Your task to perform on an android device: move a message to another label in the gmail app Image 0: 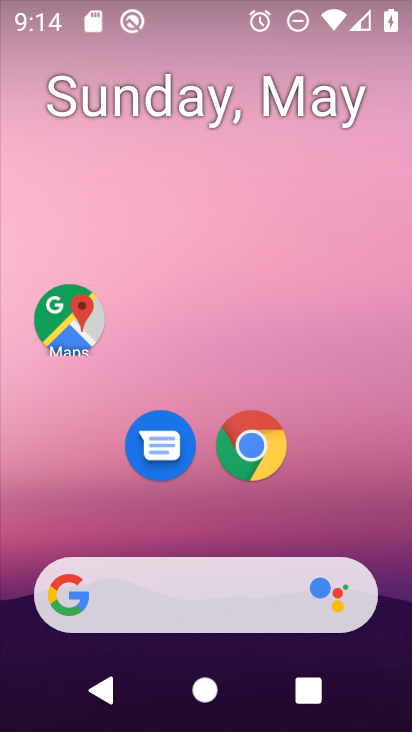
Step 0: drag from (257, 546) to (260, 139)
Your task to perform on an android device: move a message to another label in the gmail app Image 1: 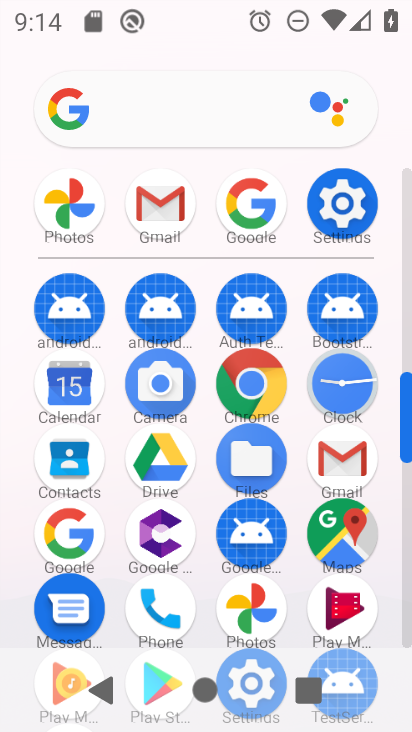
Step 1: click (347, 463)
Your task to perform on an android device: move a message to another label in the gmail app Image 2: 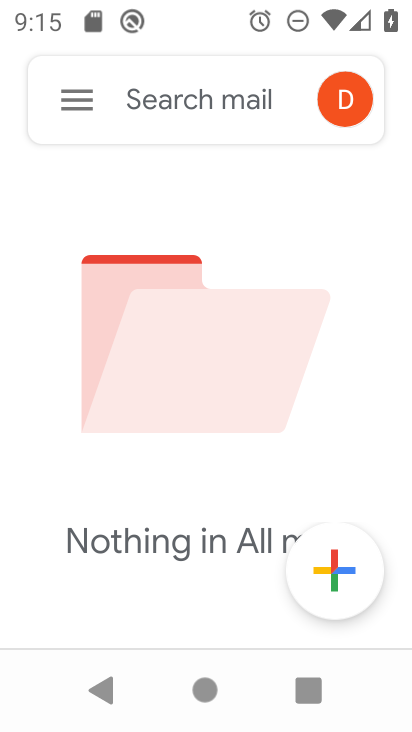
Step 2: click (74, 111)
Your task to perform on an android device: move a message to another label in the gmail app Image 3: 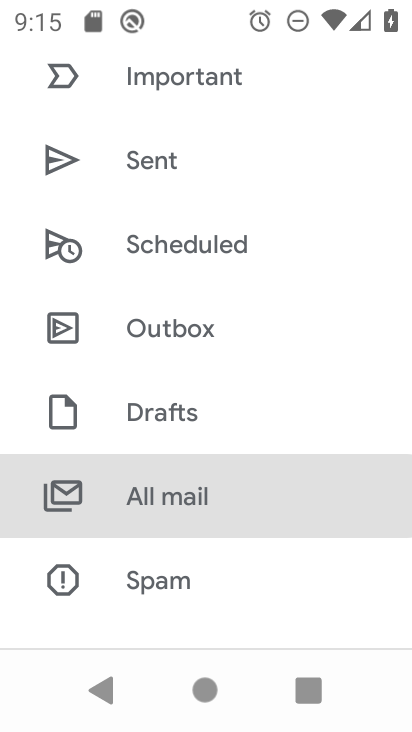
Step 3: drag from (154, 449) to (193, 316)
Your task to perform on an android device: move a message to another label in the gmail app Image 4: 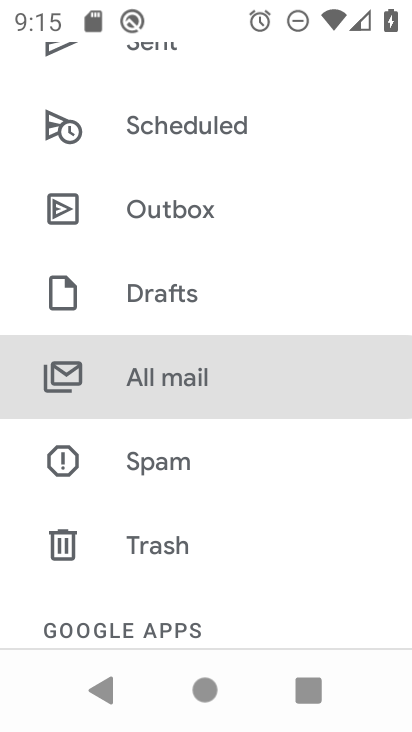
Step 4: click (187, 370)
Your task to perform on an android device: move a message to another label in the gmail app Image 5: 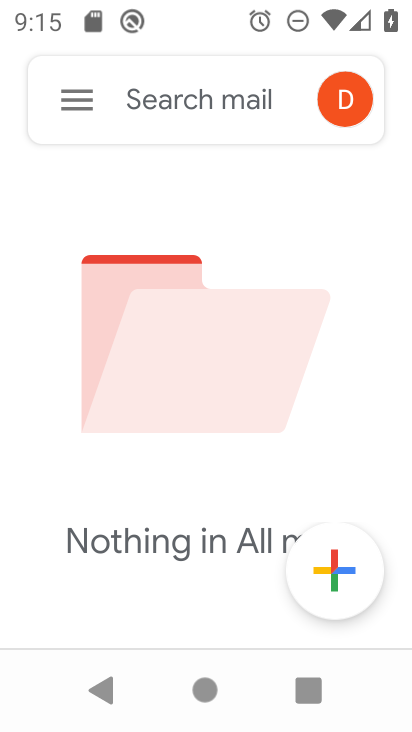
Step 5: task complete